Your task to perform on an android device: Open Google Chrome Image 0: 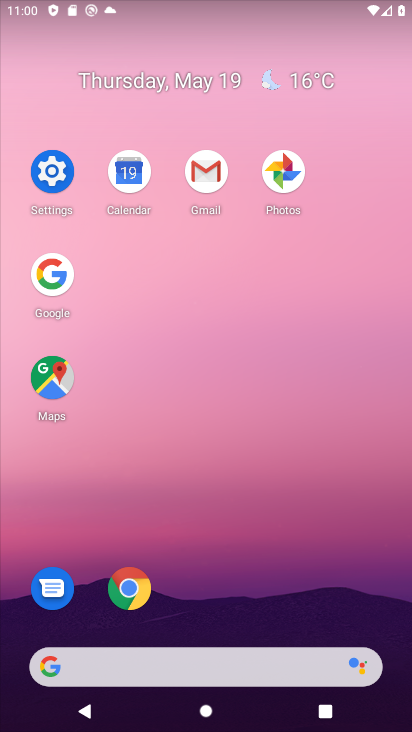
Step 0: click (129, 581)
Your task to perform on an android device: Open Google Chrome Image 1: 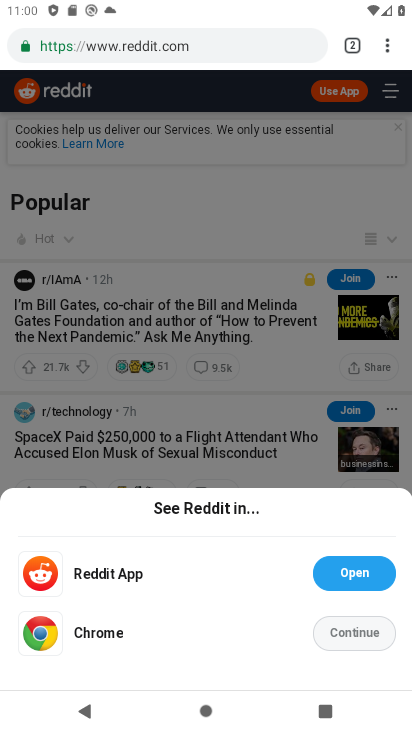
Step 1: task complete